Your task to perform on an android device: Open Maps and search for coffee Image 0: 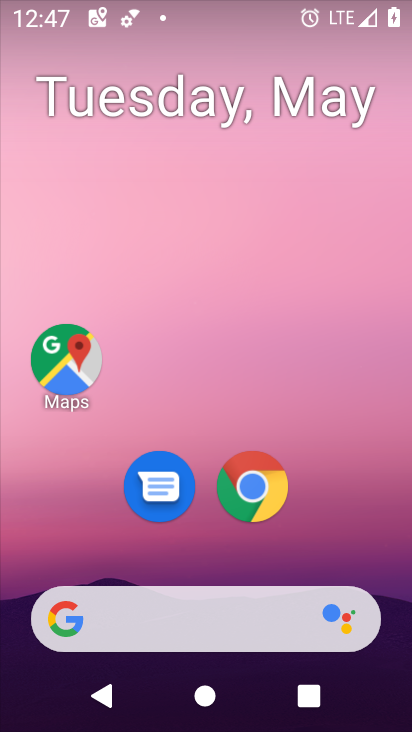
Step 0: click (73, 372)
Your task to perform on an android device: Open Maps and search for coffee Image 1: 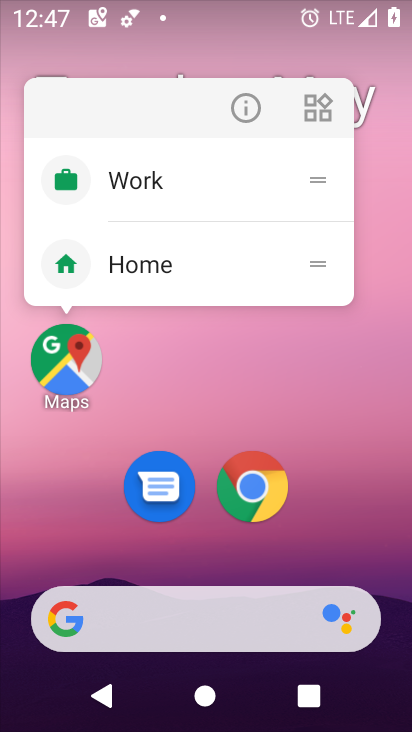
Step 1: click (51, 358)
Your task to perform on an android device: Open Maps and search for coffee Image 2: 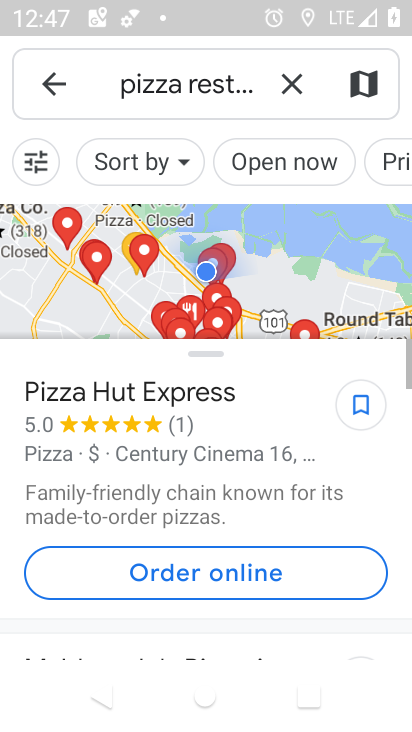
Step 2: click (296, 88)
Your task to perform on an android device: Open Maps and search for coffee Image 3: 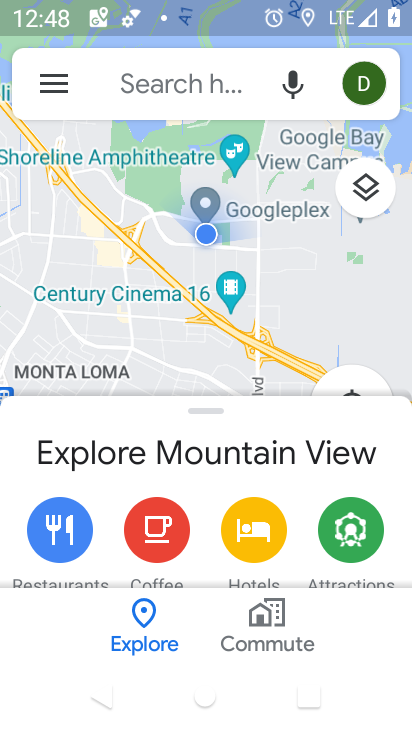
Step 3: click (203, 82)
Your task to perform on an android device: Open Maps and search for coffee Image 4: 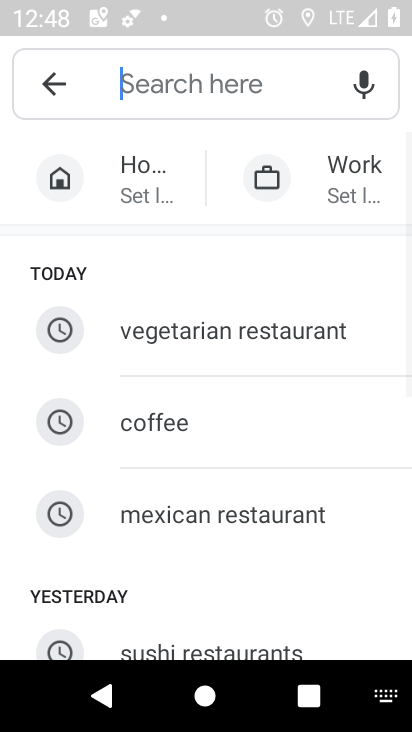
Step 4: click (148, 442)
Your task to perform on an android device: Open Maps and search for coffee Image 5: 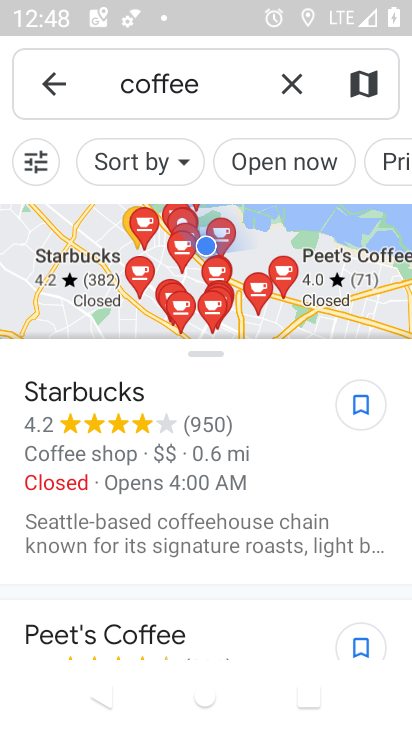
Step 5: task complete